Your task to perform on an android device: turn off javascript in the chrome app Image 0: 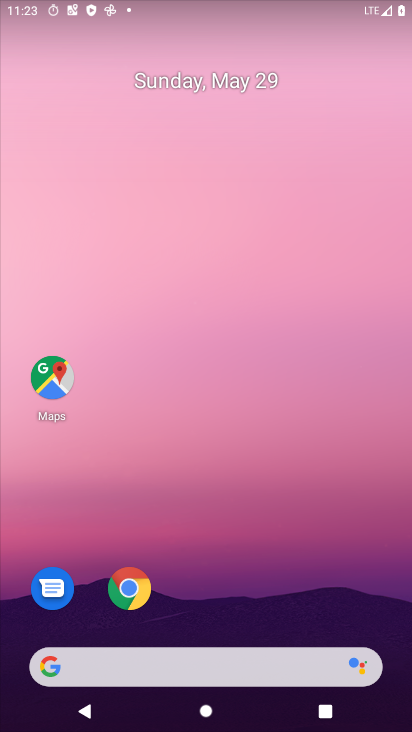
Step 0: drag from (318, 461) to (290, 101)
Your task to perform on an android device: turn off javascript in the chrome app Image 1: 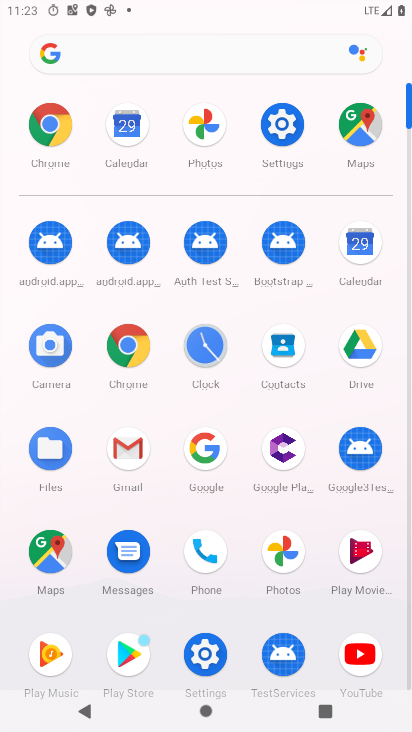
Step 1: drag from (164, 214) to (160, 64)
Your task to perform on an android device: turn off javascript in the chrome app Image 2: 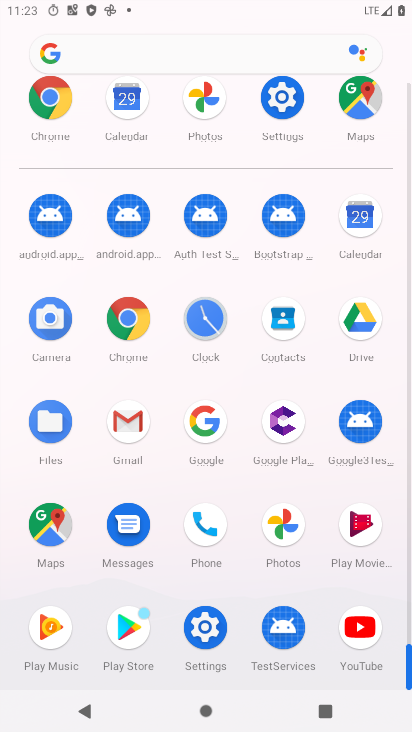
Step 2: click (132, 325)
Your task to perform on an android device: turn off javascript in the chrome app Image 3: 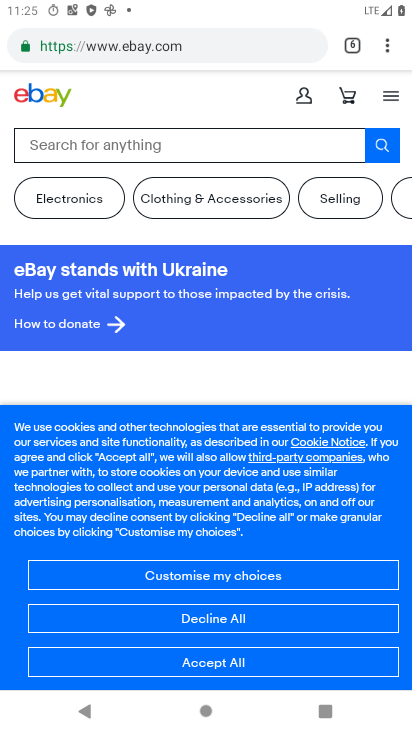
Step 3: click (382, 49)
Your task to perform on an android device: turn off javascript in the chrome app Image 4: 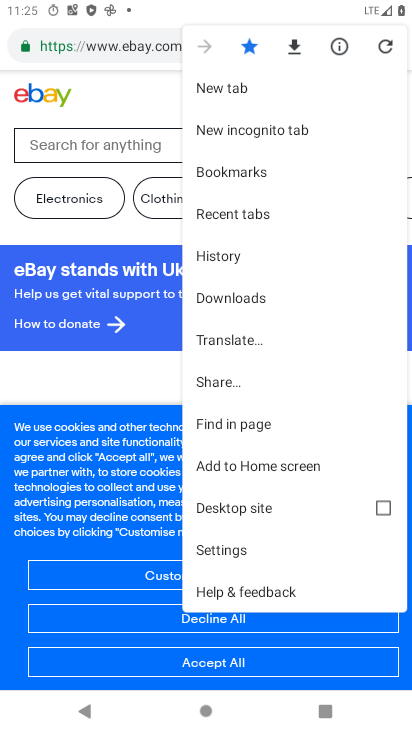
Step 4: click (239, 552)
Your task to perform on an android device: turn off javascript in the chrome app Image 5: 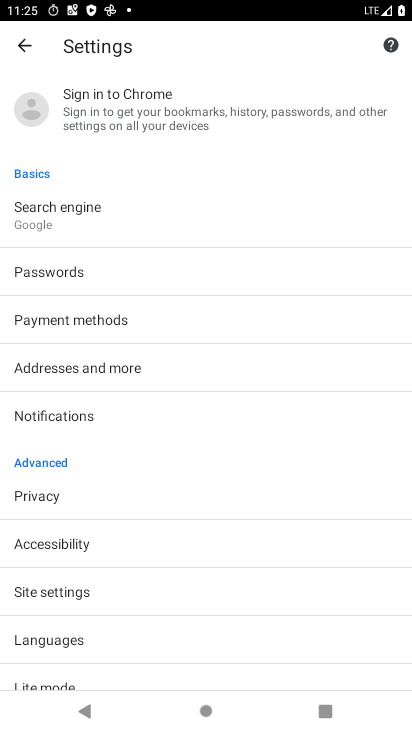
Step 5: click (87, 588)
Your task to perform on an android device: turn off javascript in the chrome app Image 6: 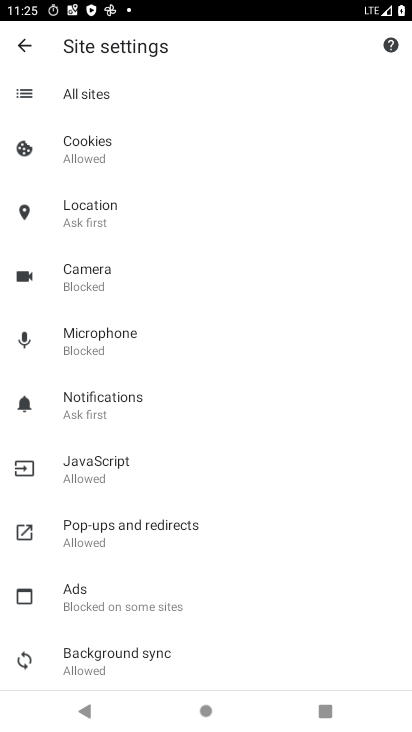
Step 6: click (109, 461)
Your task to perform on an android device: turn off javascript in the chrome app Image 7: 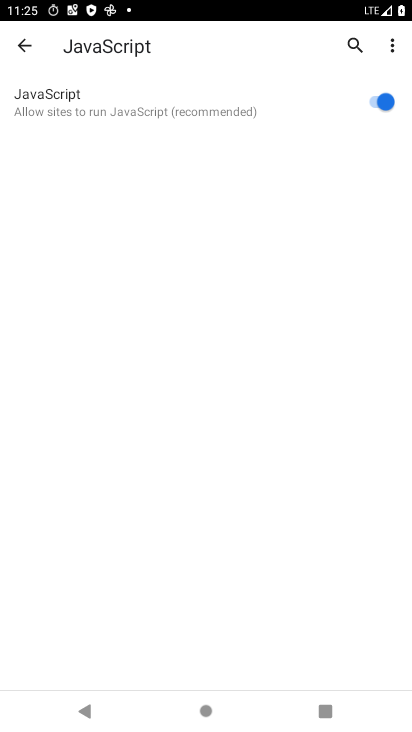
Step 7: click (380, 107)
Your task to perform on an android device: turn off javascript in the chrome app Image 8: 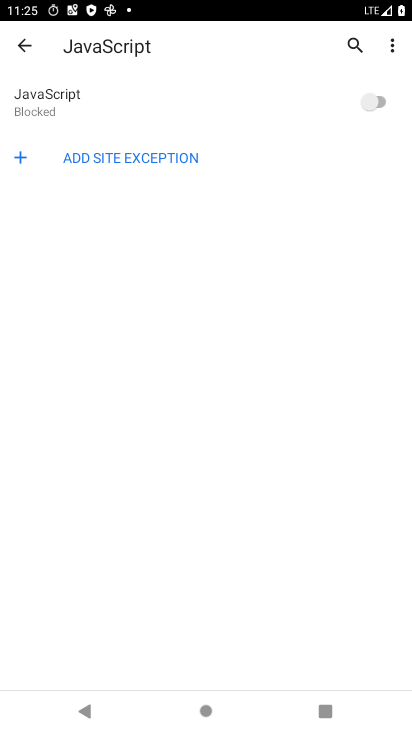
Step 8: task complete